Your task to perform on an android device: turn pop-ups off in chrome Image 0: 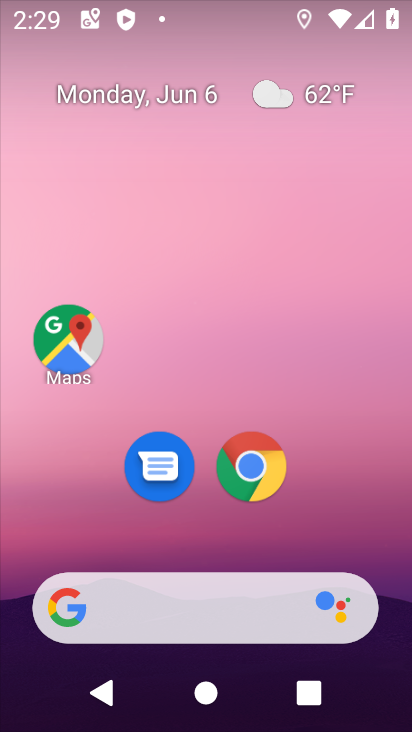
Step 0: click (237, 113)
Your task to perform on an android device: turn pop-ups off in chrome Image 1: 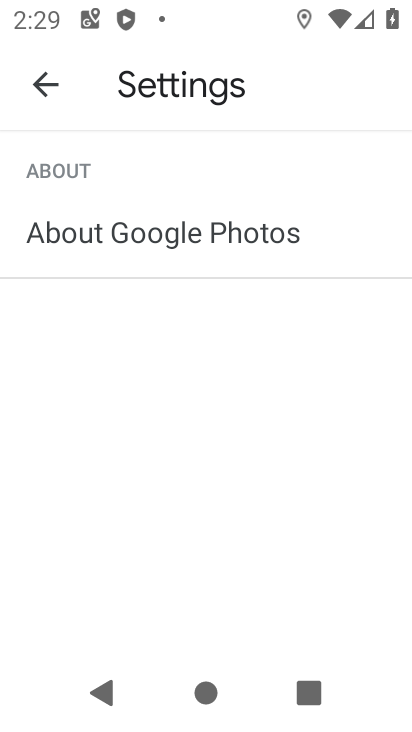
Step 1: press back button
Your task to perform on an android device: turn pop-ups off in chrome Image 2: 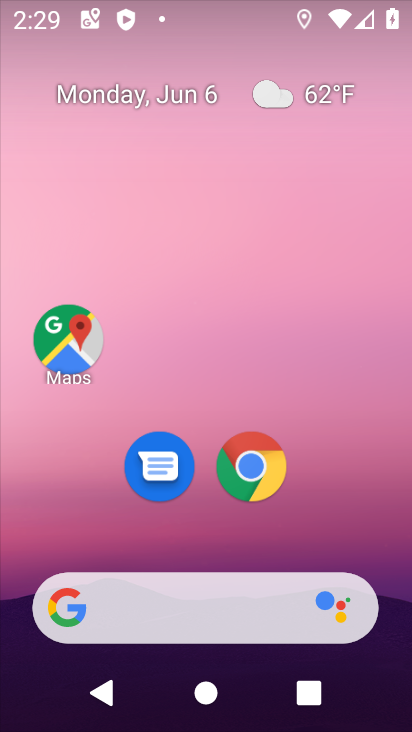
Step 2: press home button
Your task to perform on an android device: turn pop-ups off in chrome Image 3: 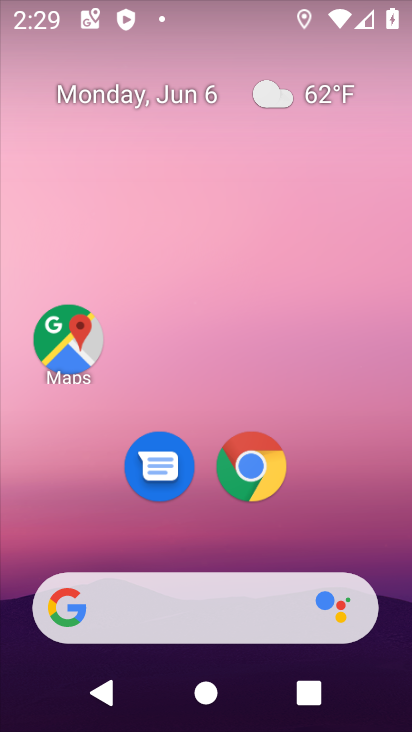
Step 3: drag from (268, 642) to (272, 108)
Your task to perform on an android device: turn pop-ups off in chrome Image 4: 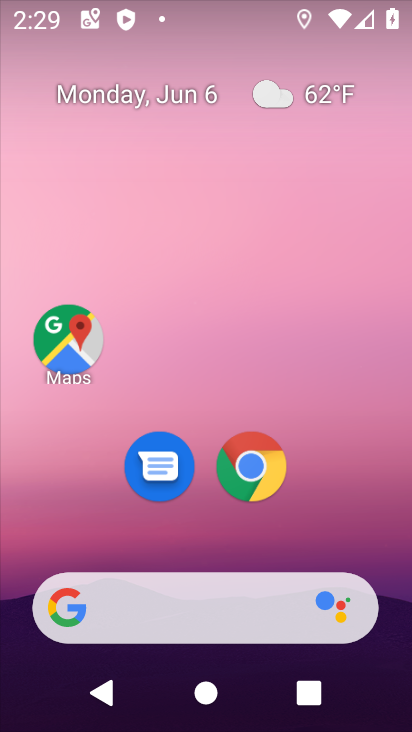
Step 4: drag from (229, 46) to (269, 35)
Your task to perform on an android device: turn pop-ups off in chrome Image 5: 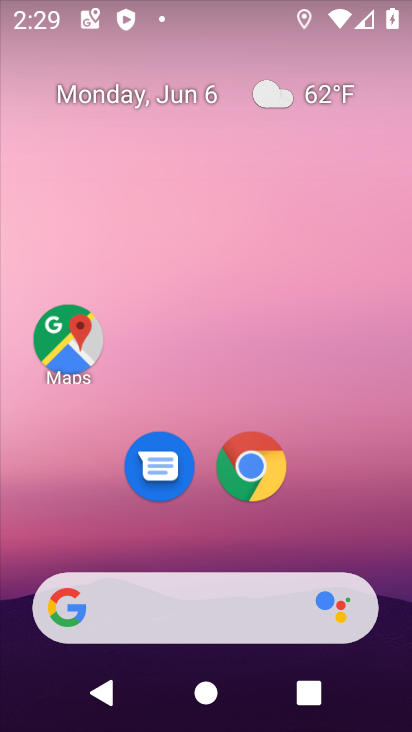
Step 5: drag from (240, 541) to (206, 55)
Your task to perform on an android device: turn pop-ups off in chrome Image 6: 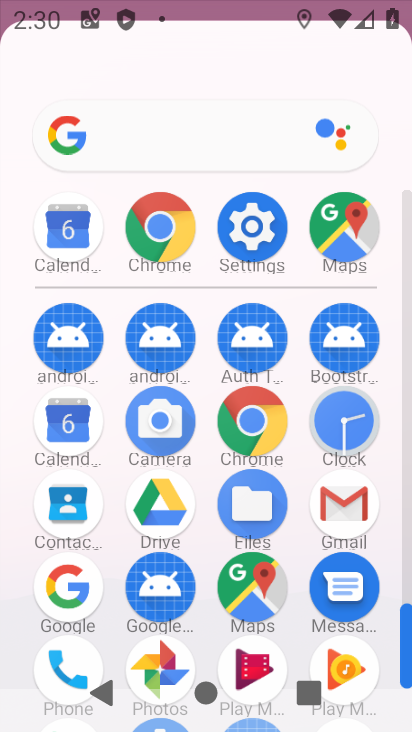
Step 6: drag from (248, 452) to (248, 12)
Your task to perform on an android device: turn pop-ups off in chrome Image 7: 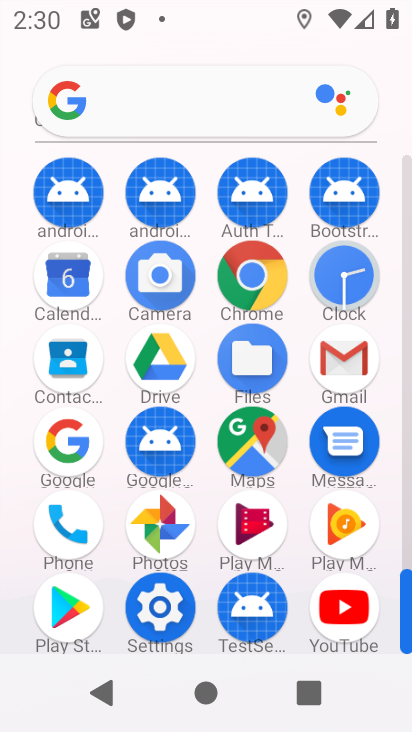
Step 7: click (167, 188)
Your task to perform on an android device: turn pop-ups off in chrome Image 8: 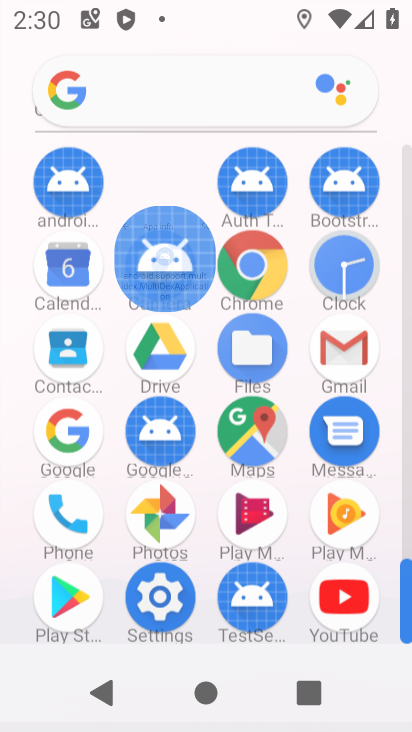
Step 8: click (250, 272)
Your task to perform on an android device: turn pop-ups off in chrome Image 9: 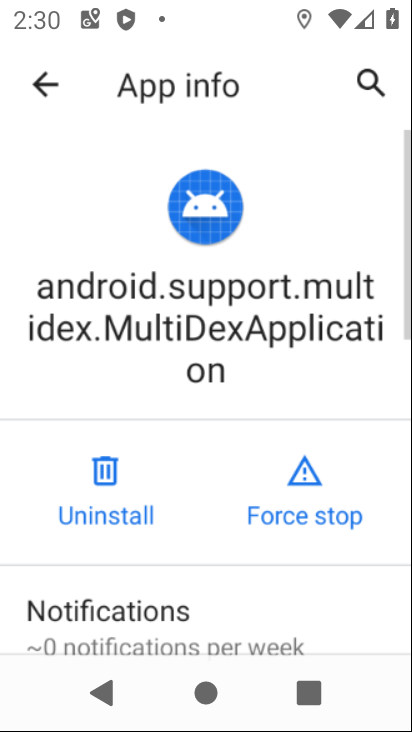
Step 9: click (250, 272)
Your task to perform on an android device: turn pop-ups off in chrome Image 10: 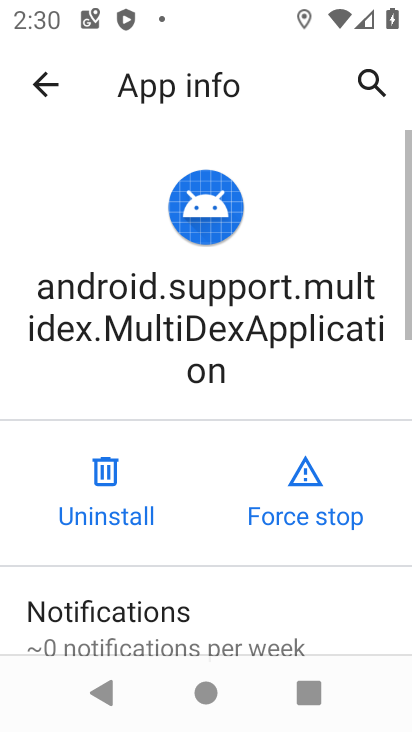
Step 10: click (45, 80)
Your task to perform on an android device: turn pop-ups off in chrome Image 11: 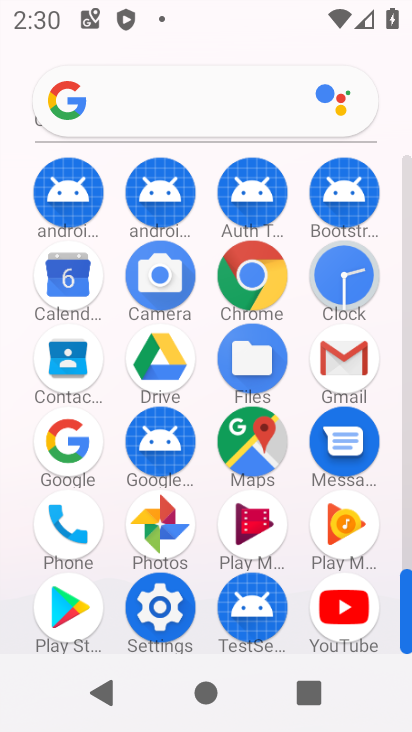
Step 11: click (258, 268)
Your task to perform on an android device: turn pop-ups off in chrome Image 12: 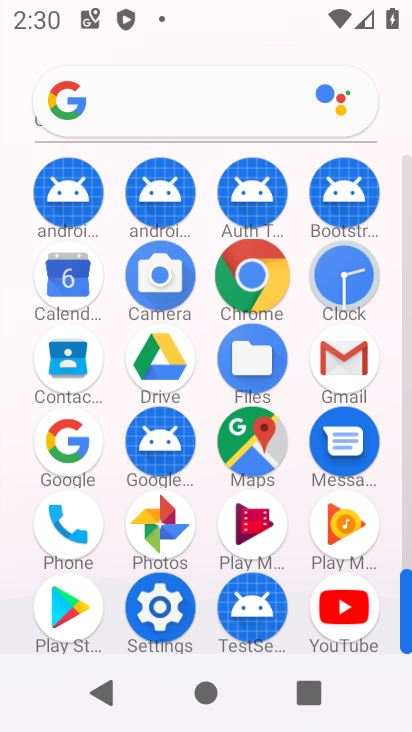
Step 12: click (258, 268)
Your task to perform on an android device: turn pop-ups off in chrome Image 13: 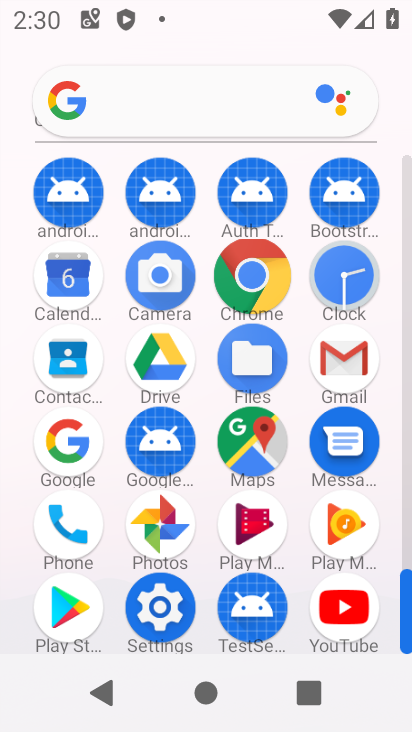
Step 13: click (256, 272)
Your task to perform on an android device: turn pop-ups off in chrome Image 14: 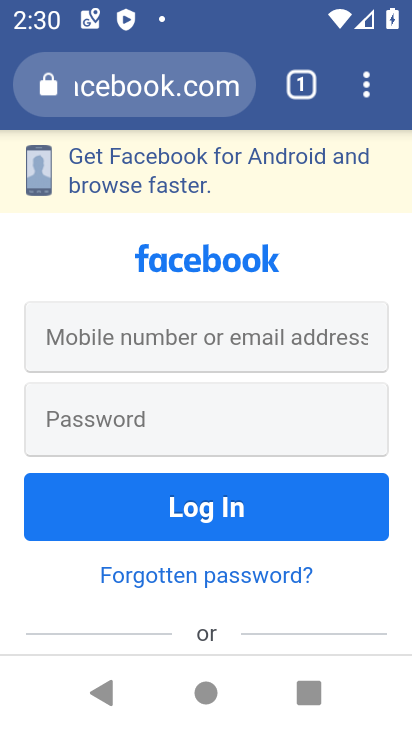
Step 14: press back button
Your task to perform on an android device: turn pop-ups off in chrome Image 15: 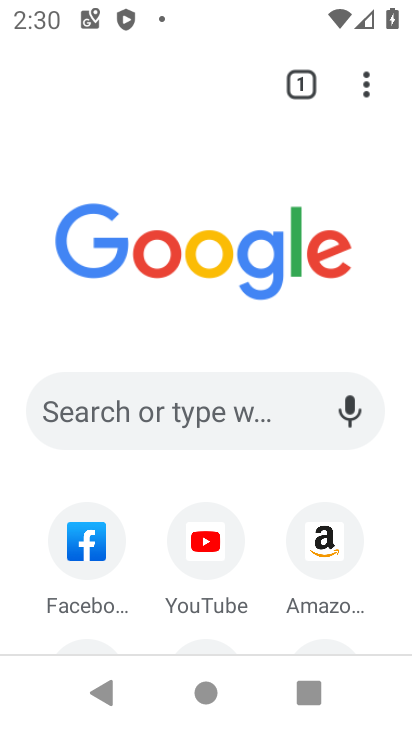
Step 15: click (375, 86)
Your task to perform on an android device: turn pop-ups off in chrome Image 16: 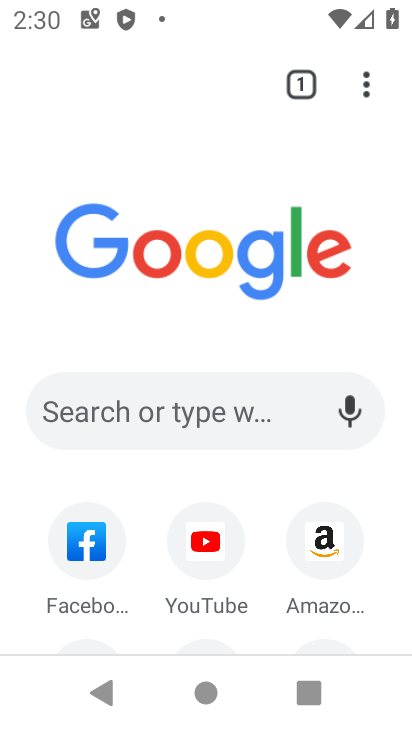
Step 16: drag from (369, 81) to (83, 508)
Your task to perform on an android device: turn pop-ups off in chrome Image 17: 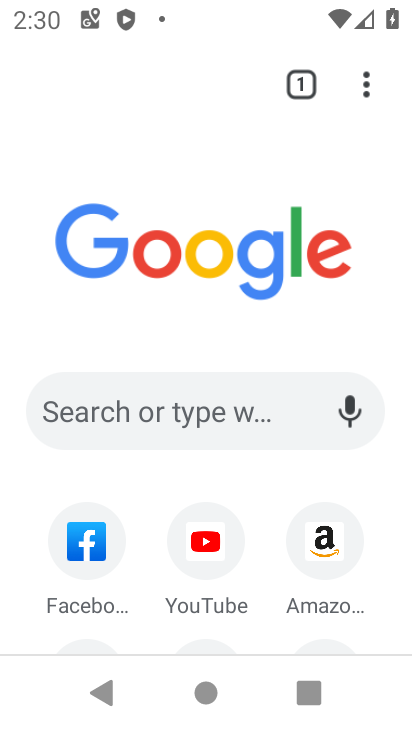
Step 17: click (83, 508)
Your task to perform on an android device: turn pop-ups off in chrome Image 18: 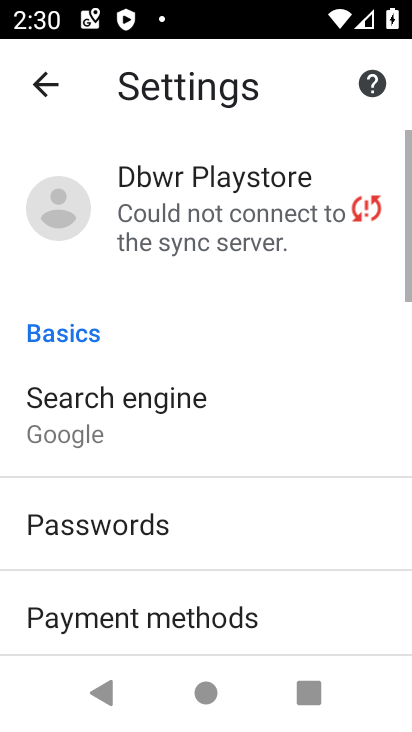
Step 18: drag from (161, 502) to (101, 32)
Your task to perform on an android device: turn pop-ups off in chrome Image 19: 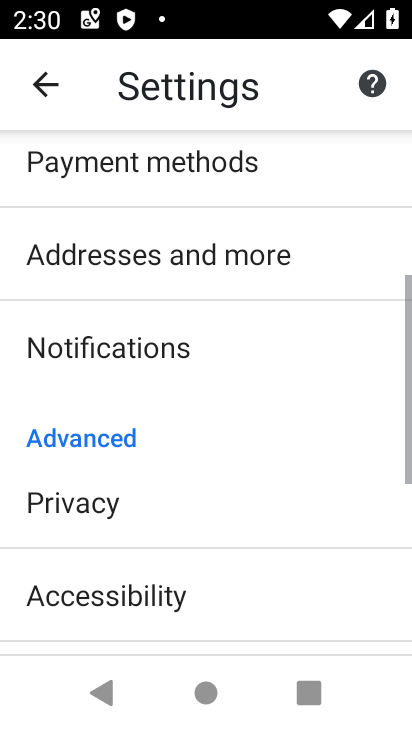
Step 19: drag from (178, 392) to (192, 222)
Your task to perform on an android device: turn pop-ups off in chrome Image 20: 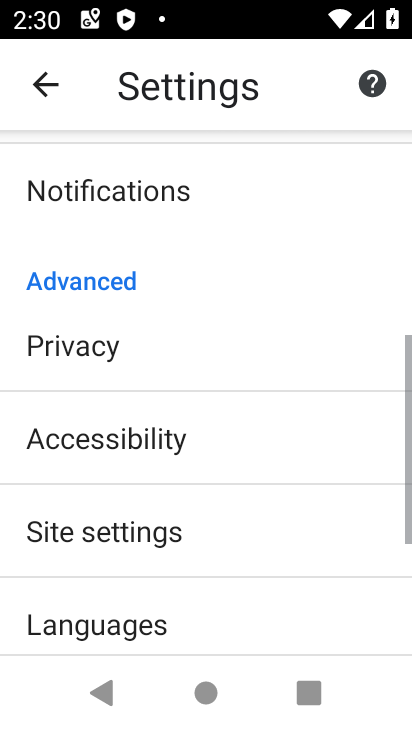
Step 20: drag from (152, 426) to (187, 207)
Your task to perform on an android device: turn pop-ups off in chrome Image 21: 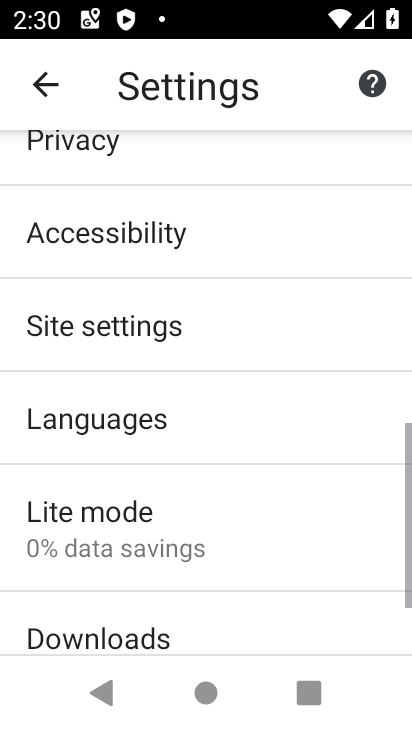
Step 21: drag from (188, 455) to (188, 393)
Your task to perform on an android device: turn pop-ups off in chrome Image 22: 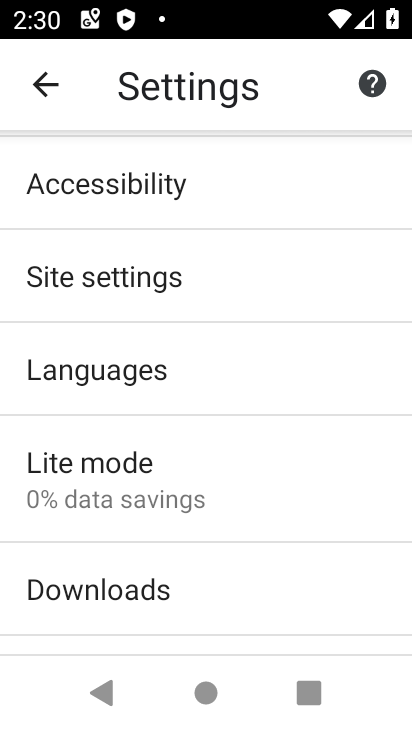
Step 22: click (114, 285)
Your task to perform on an android device: turn pop-ups off in chrome Image 23: 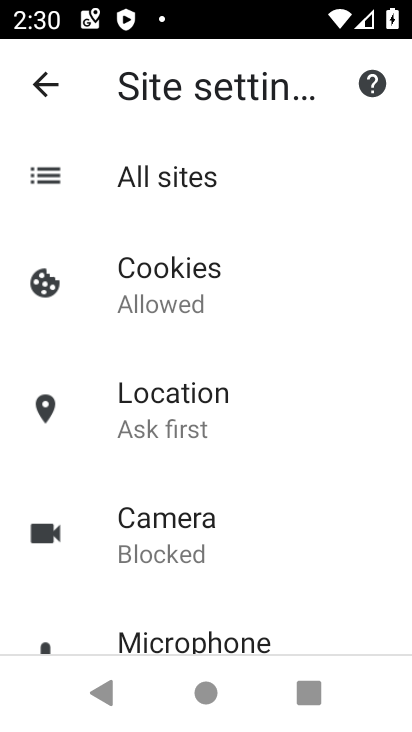
Step 23: drag from (182, 448) to (183, 129)
Your task to perform on an android device: turn pop-ups off in chrome Image 24: 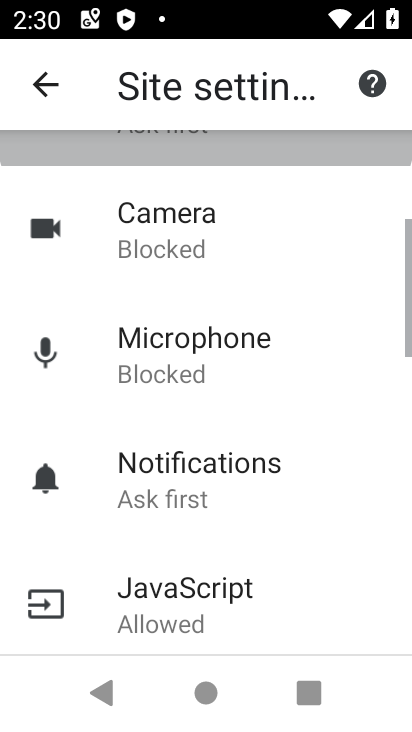
Step 24: drag from (231, 445) to (253, 146)
Your task to perform on an android device: turn pop-ups off in chrome Image 25: 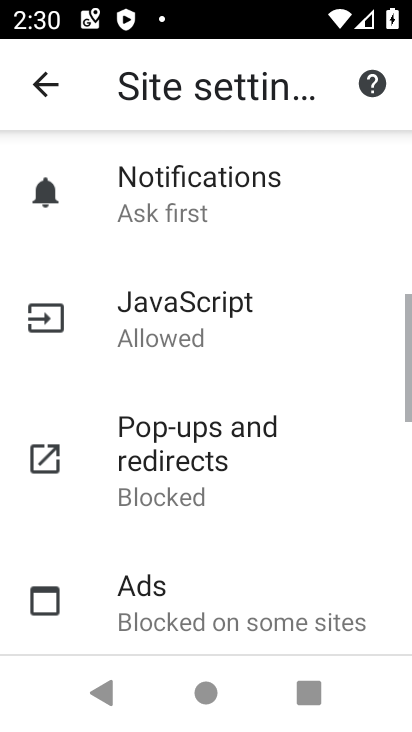
Step 25: drag from (226, 346) to (226, 203)
Your task to perform on an android device: turn pop-ups off in chrome Image 26: 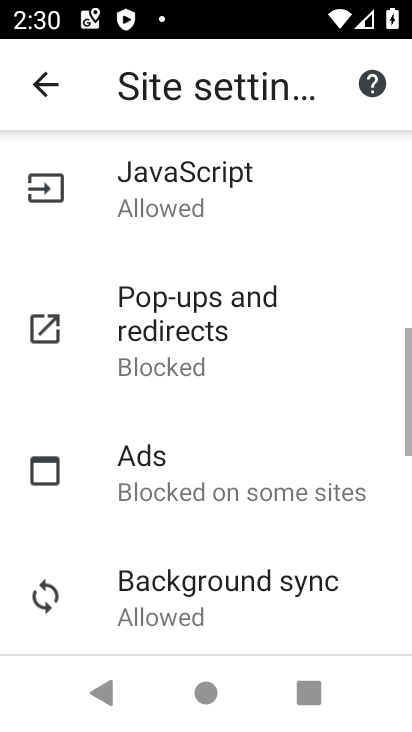
Step 26: drag from (237, 275) to (240, 206)
Your task to perform on an android device: turn pop-ups off in chrome Image 27: 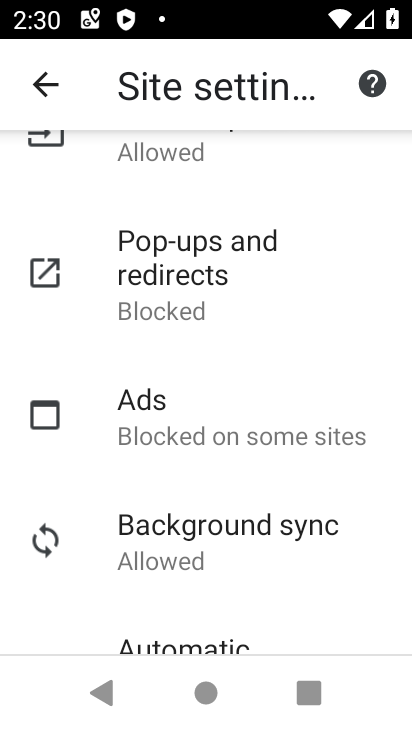
Step 27: click (145, 260)
Your task to perform on an android device: turn pop-ups off in chrome Image 28: 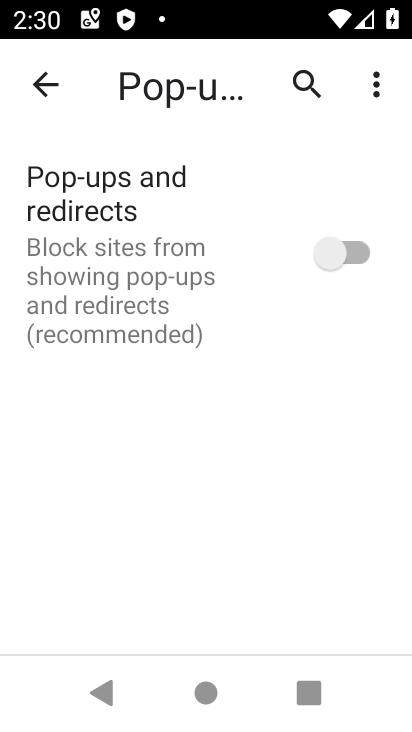
Step 28: task complete